Your task to perform on an android device: remove spam from my inbox in the gmail app Image 0: 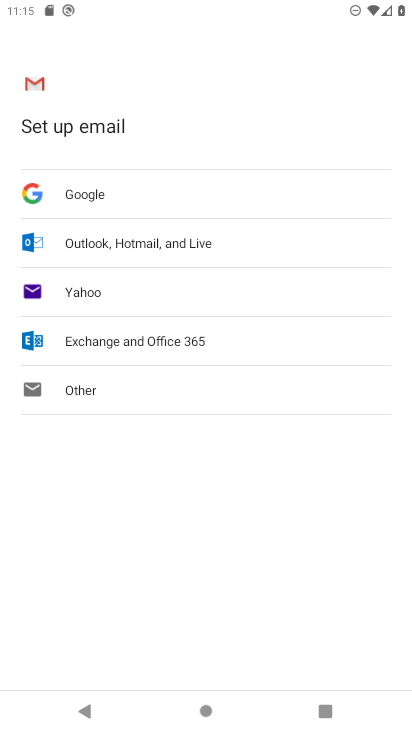
Step 0: press home button
Your task to perform on an android device: remove spam from my inbox in the gmail app Image 1: 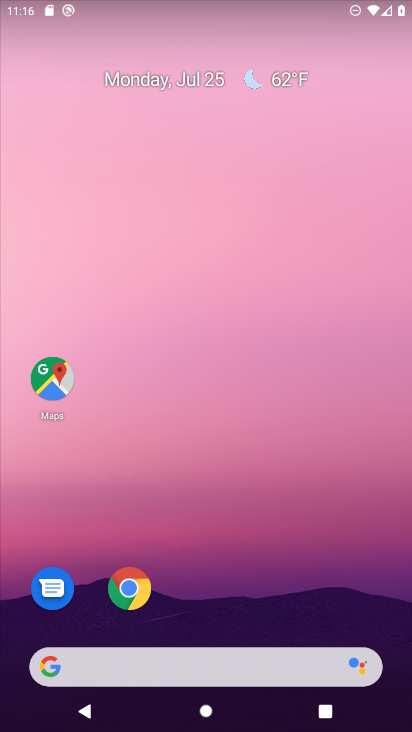
Step 1: drag from (0, 696) to (257, 133)
Your task to perform on an android device: remove spam from my inbox in the gmail app Image 2: 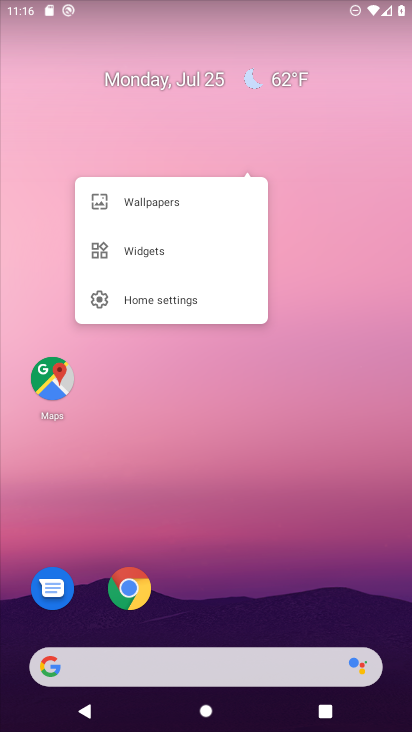
Step 2: click (134, 497)
Your task to perform on an android device: remove spam from my inbox in the gmail app Image 3: 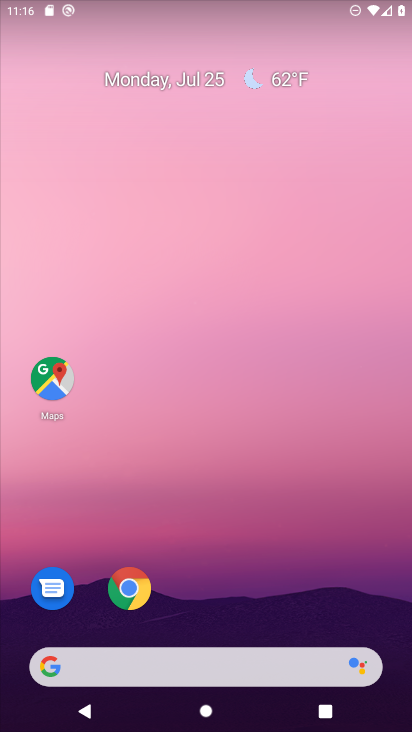
Step 3: drag from (28, 530) to (225, 40)
Your task to perform on an android device: remove spam from my inbox in the gmail app Image 4: 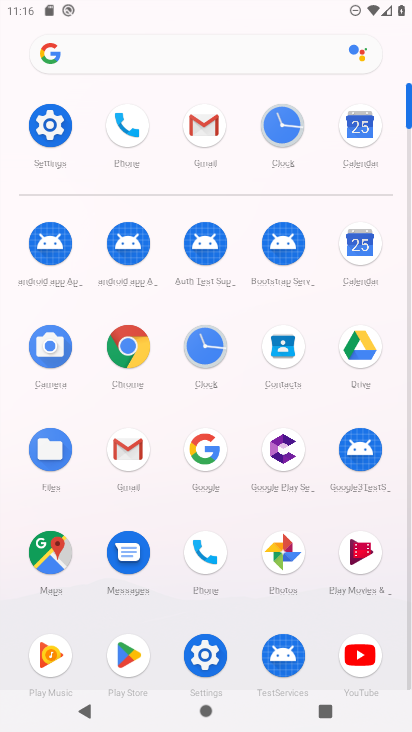
Step 4: click (190, 145)
Your task to perform on an android device: remove spam from my inbox in the gmail app Image 5: 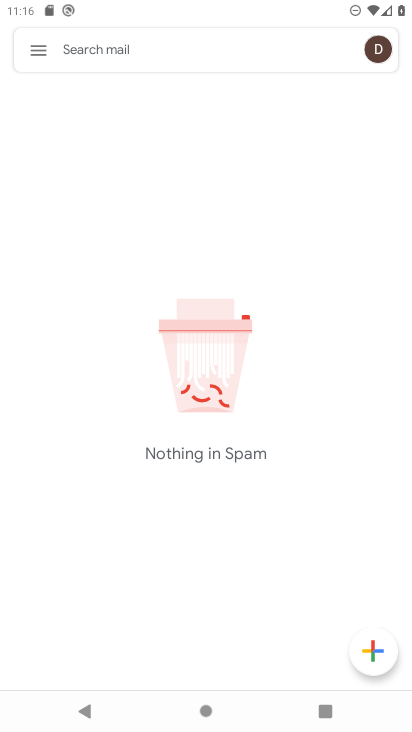
Step 5: task complete